Your task to perform on an android device: Search for Mexican restaurants on Maps Image 0: 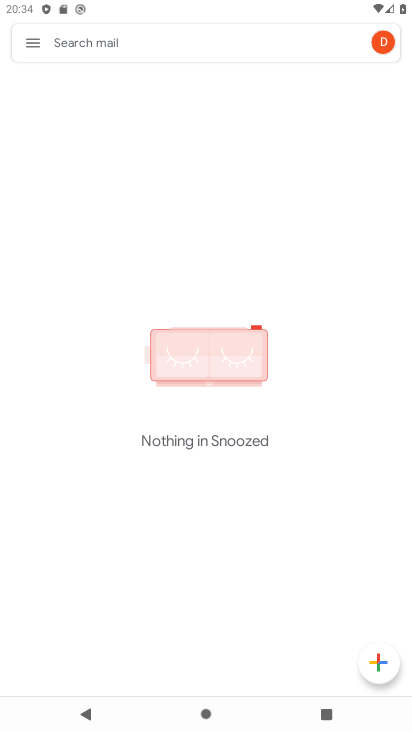
Step 0: press home button
Your task to perform on an android device: Search for Mexican restaurants on Maps Image 1: 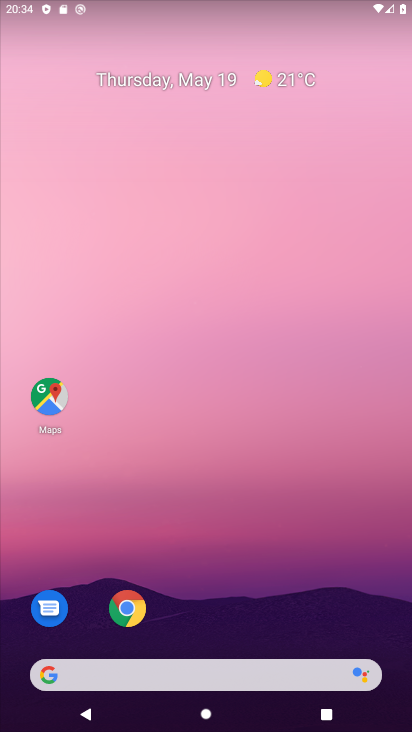
Step 1: click (49, 402)
Your task to perform on an android device: Search for Mexican restaurants on Maps Image 2: 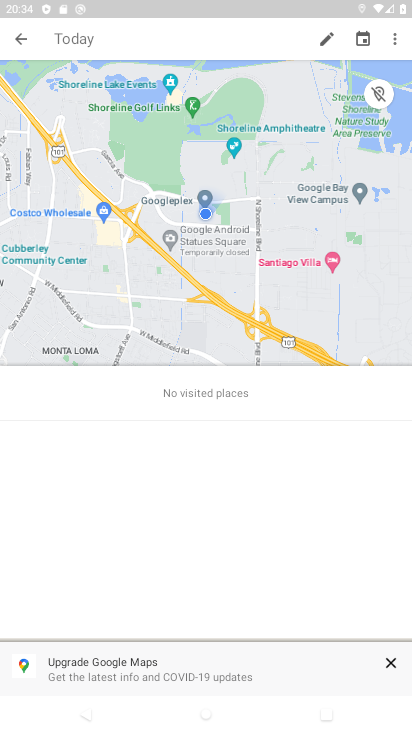
Step 2: click (14, 35)
Your task to perform on an android device: Search for Mexican restaurants on Maps Image 3: 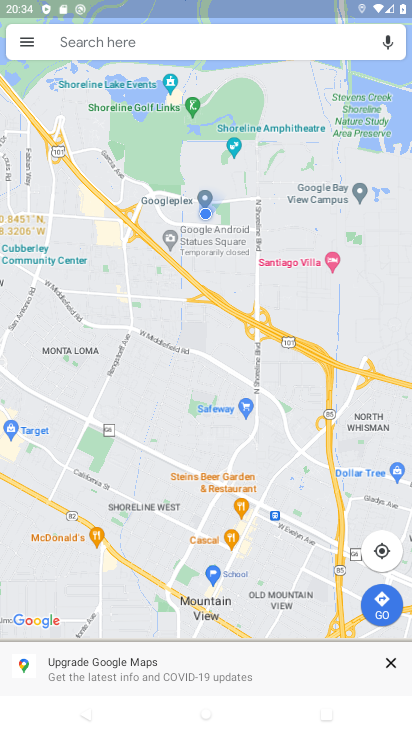
Step 3: click (147, 34)
Your task to perform on an android device: Search for Mexican restaurants on Maps Image 4: 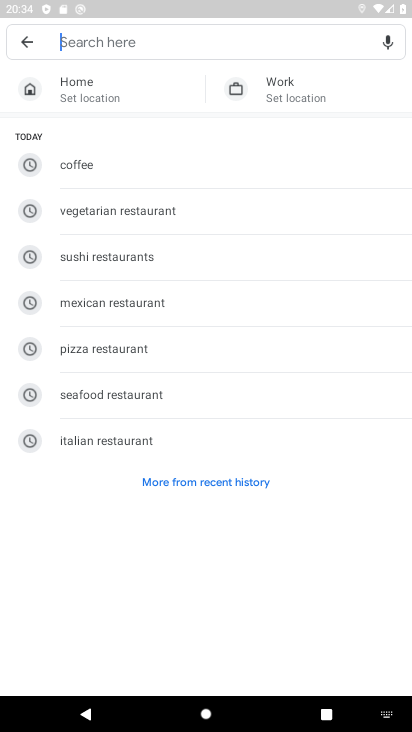
Step 4: type "mexican restaurants"
Your task to perform on an android device: Search for Mexican restaurants on Maps Image 5: 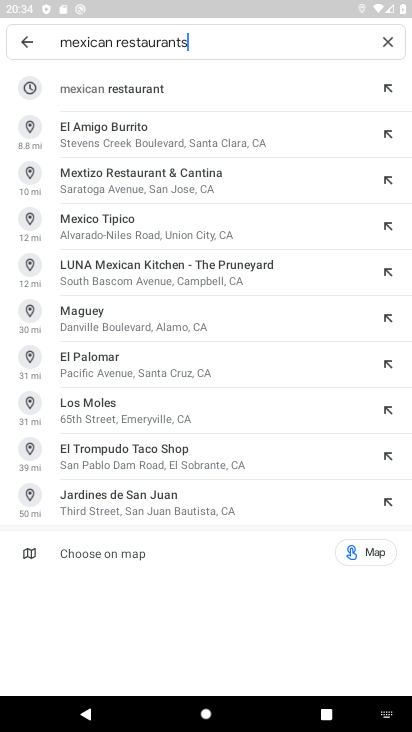
Step 5: click (132, 87)
Your task to perform on an android device: Search for Mexican restaurants on Maps Image 6: 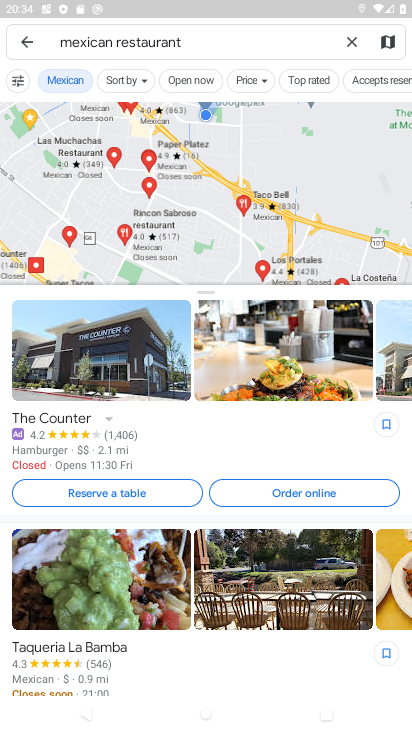
Step 6: task complete